Your task to perform on an android device: Set the phone to "Do not disturb". Image 0: 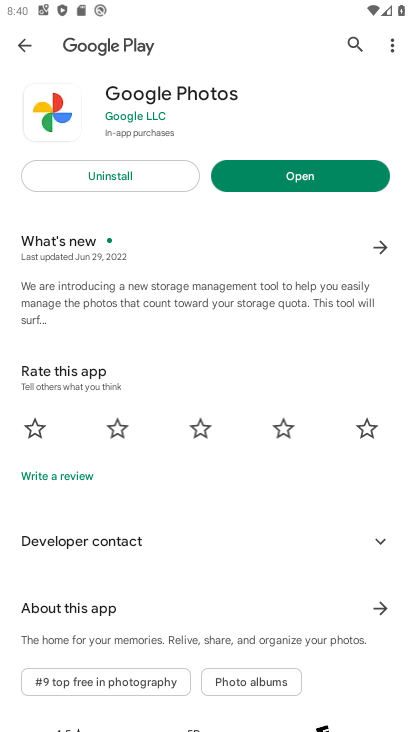
Step 0: press home button
Your task to perform on an android device: Set the phone to "Do not disturb". Image 1: 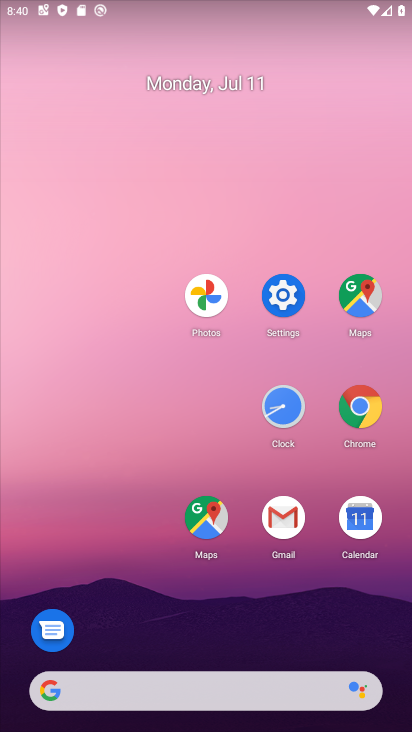
Step 1: click (280, 295)
Your task to perform on an android device: Set the phone to "Do not disturb". Image 2: 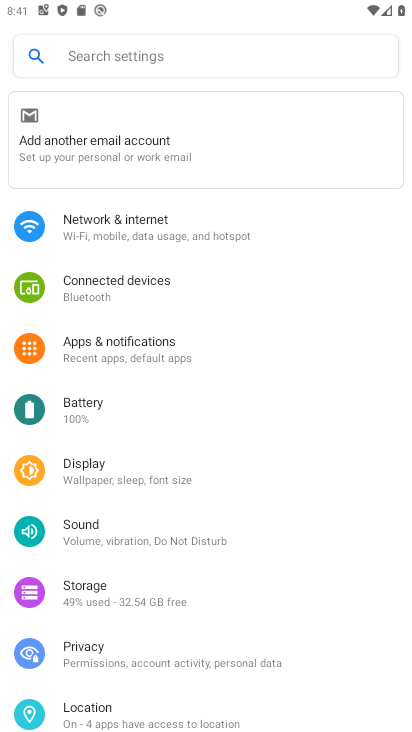
Step 2: click (205, 527)
Your task to perform on an android device: Set the phone to "Do not disturb". Image 3: 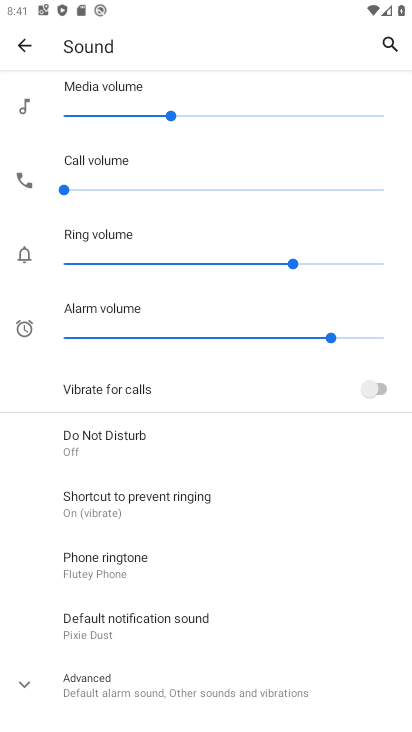
Step 3: click (133, 450)
Your task to perform on an android device: Set the phone to "Do not disturb". Image 4: 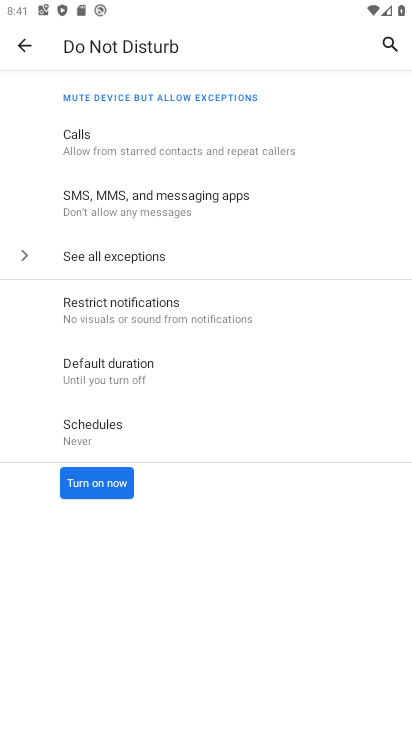
Step 4: click (117, 488)
Your task to perform on an android device: Set the phone to "Do not disturb". Image 5: 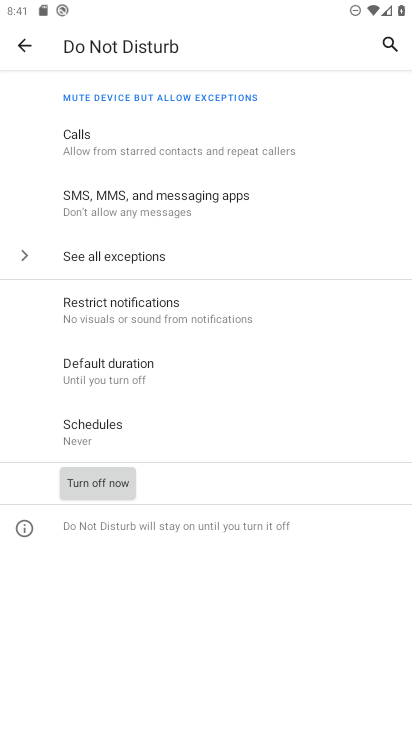
Step 5: task complete